Your task to perform on an android device: Open display settings Image 0: 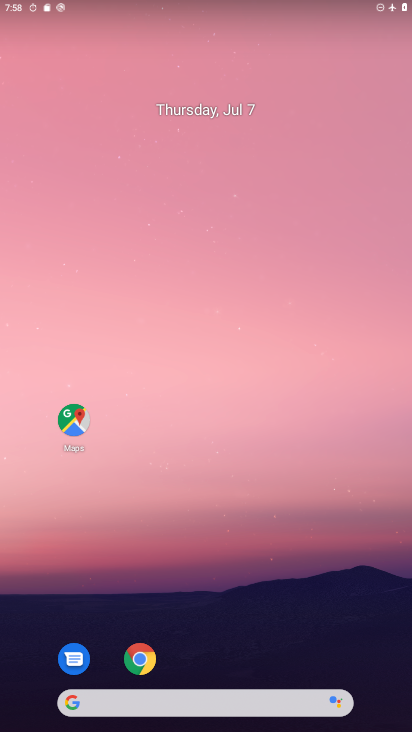
Step 0: drag from (379, 680) to (297, 78)
Your task to perform on an android device: Open display settings Image 1: 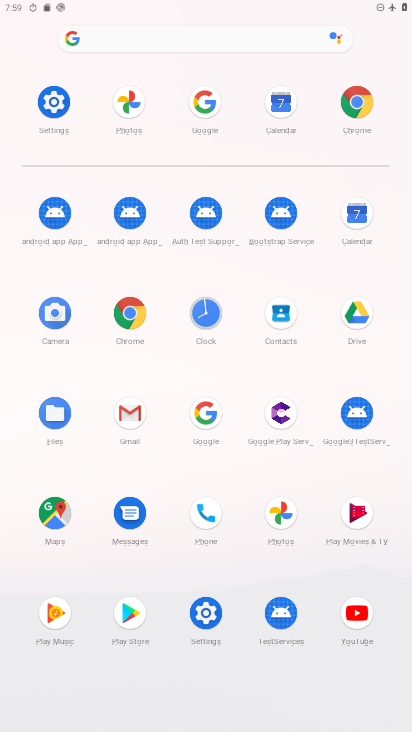
Step 1: click (205, 627)
Your task to perform on an android device: Open display settings Image 2: 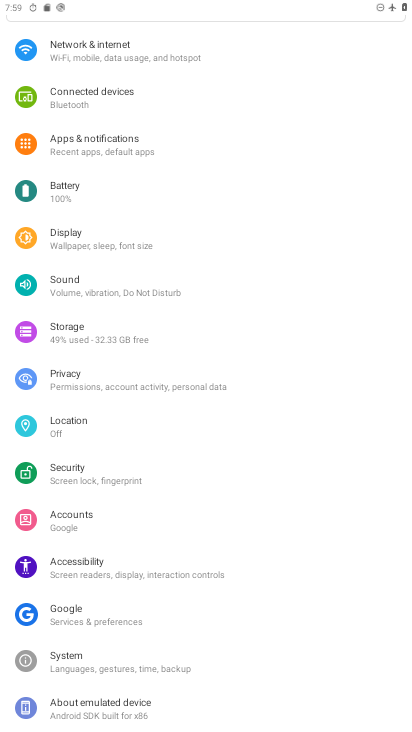
Step 2: click (72, 241)
Your task to perform on an android device: Open display settings Image 3: 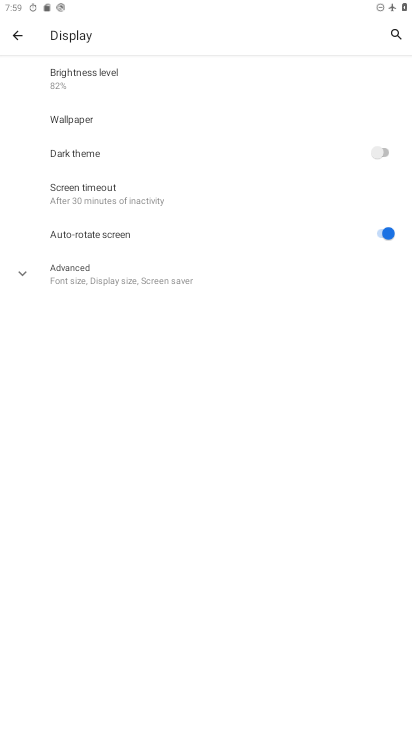
Step 3: task complete